Your task to perform on an android device: Search for pizza restaurants on Maps Image 0: 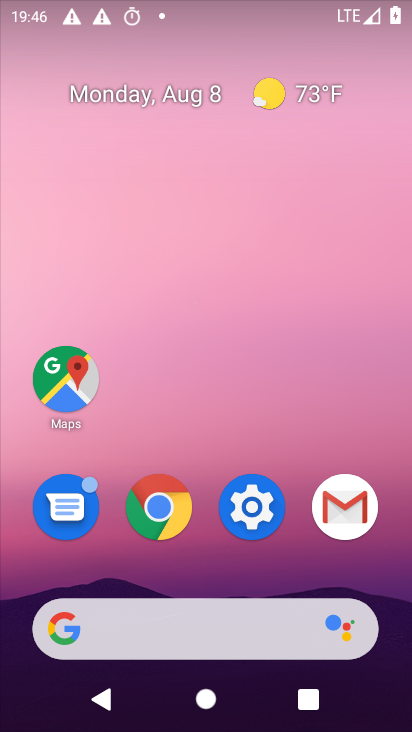
Step 0: drag from (273, 653) to (200, 75)
Your task to perform on an android device: Search for pizza restaurants on Maps Image 1: 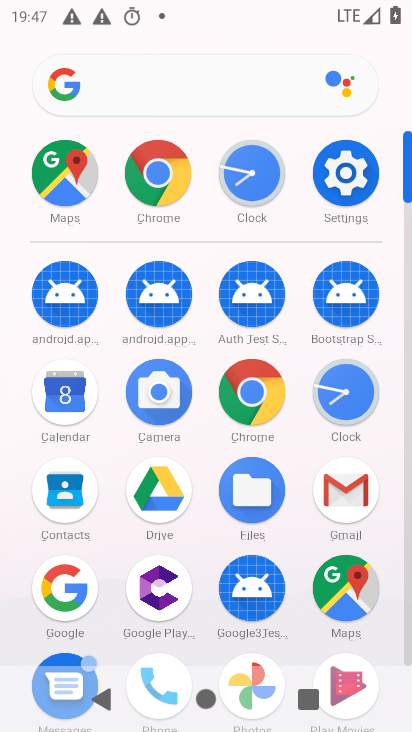
Step 1: click (353, 582)
Your task to perform on an android device: Search for pizza restaurants on Maps Image 2: 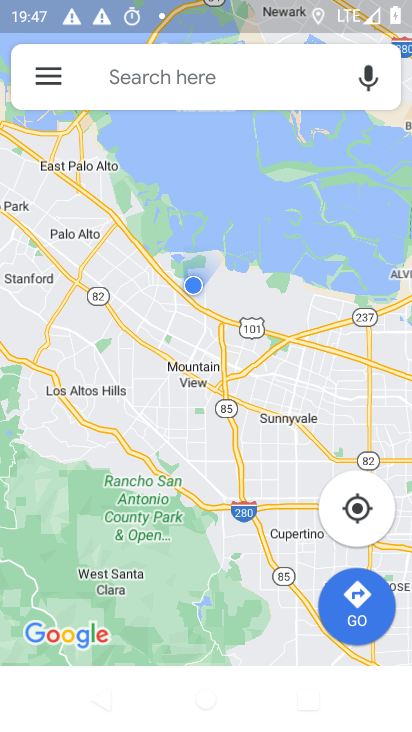
Step 2: click (155, 73)
Your task to perform on an android device: Search for pizza restaurants on Maps Image 3: 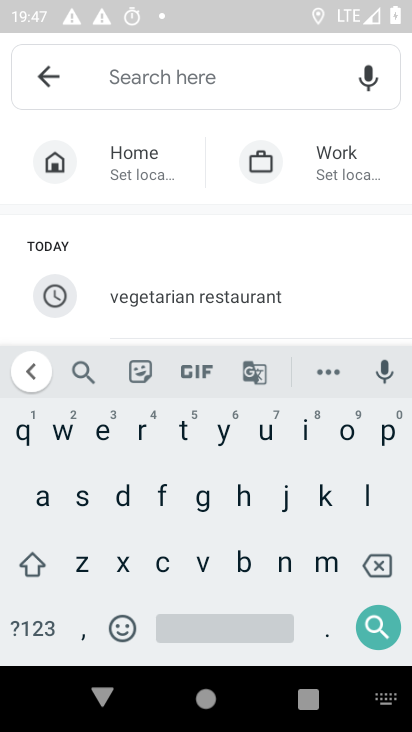
Step 3: click (382, 440)
Your task to perform on an android device: Search for pizza restaurants on Maps Image 4: 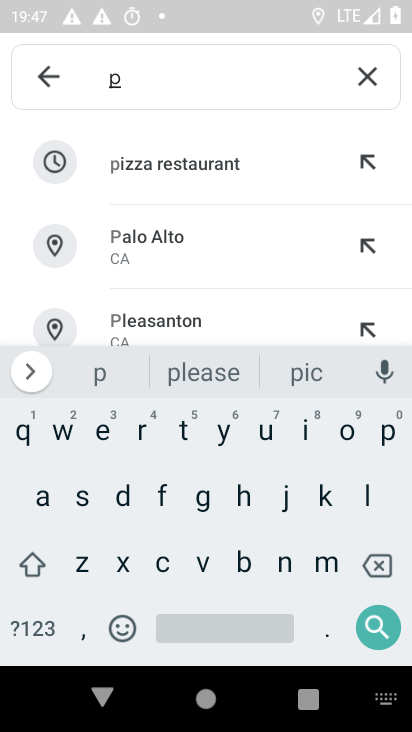
Step 4: click (179, 170)
Your task to perform on an android device: Search for pizza restaurants on Maps Image 5: 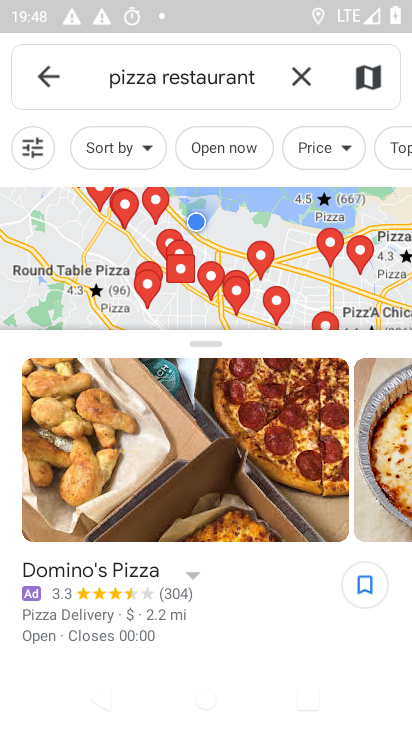
Step 5: task complete